Your task to perform on an android device: check data usage Image 0: 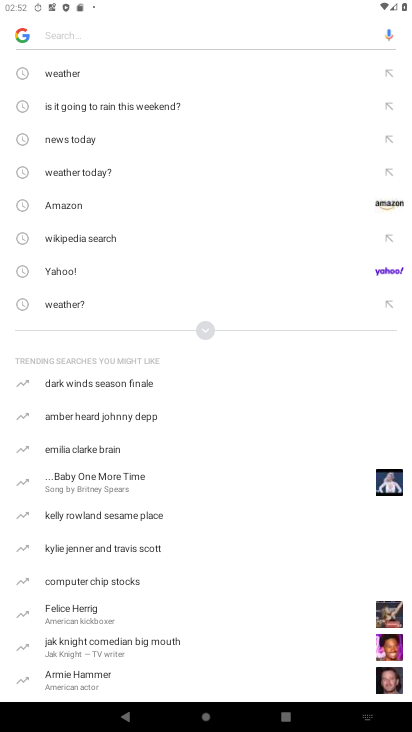
Step 0: press home button
Your task to perform on an android device: check data usage Image 1: 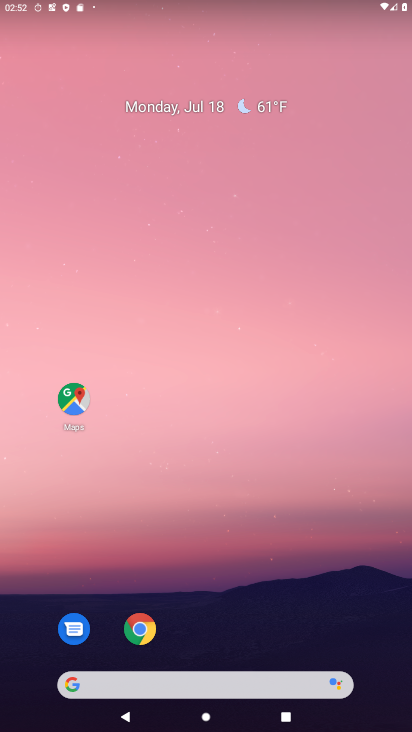
Step 1: drag from (197, 680) to (204, 134)
Your task to perform on an android device: check data usage Image 2: 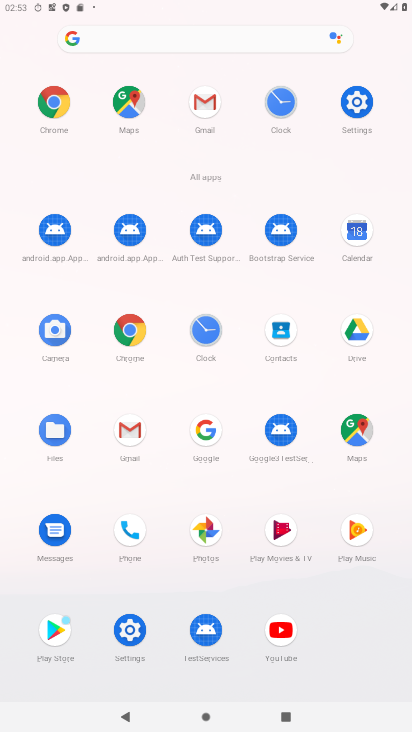
Step 2: click (355, 103)
Your task to perform on an android device: check data usage Image 3: 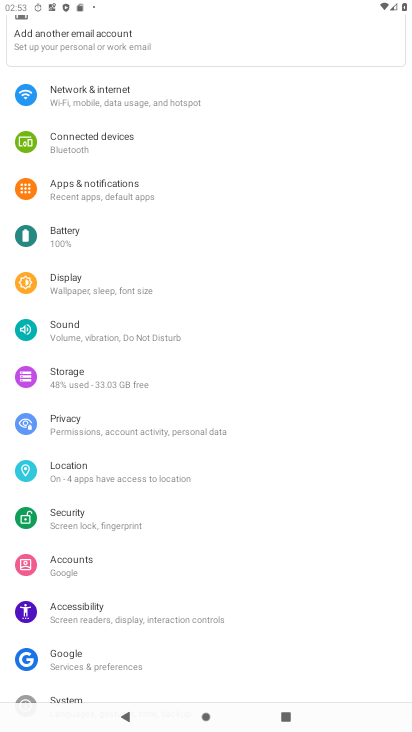
Step 3: click (139, 103)
Your task to perform on an android device: check data usage Image 4: 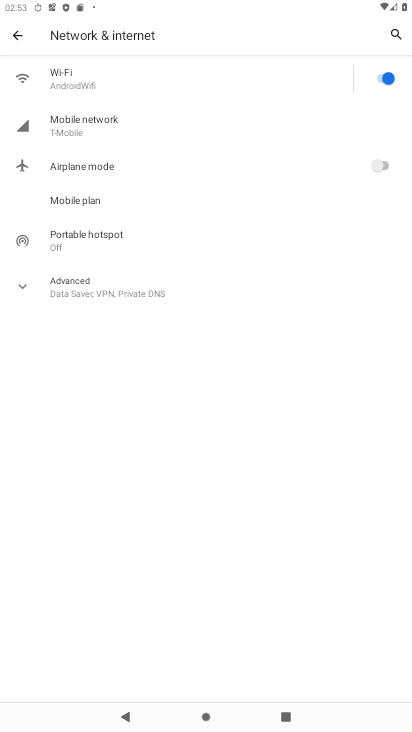
Step 4: click (95, 122)
Your task to perform on an android device: check data usage Image 5: 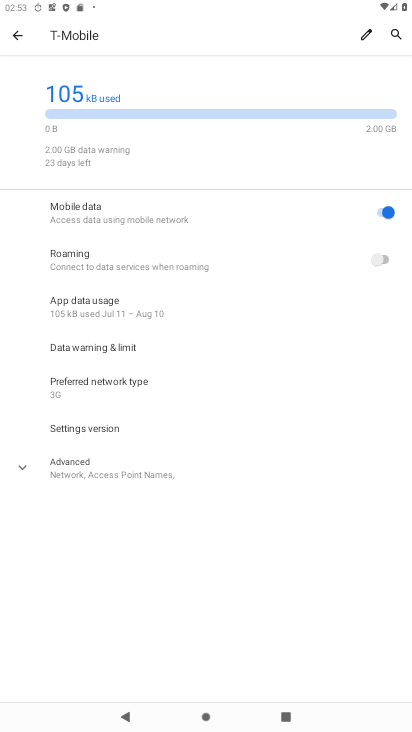
Step 5: task complete